Your task to perform on an android device: turn off translation in the chrome app Image 0: 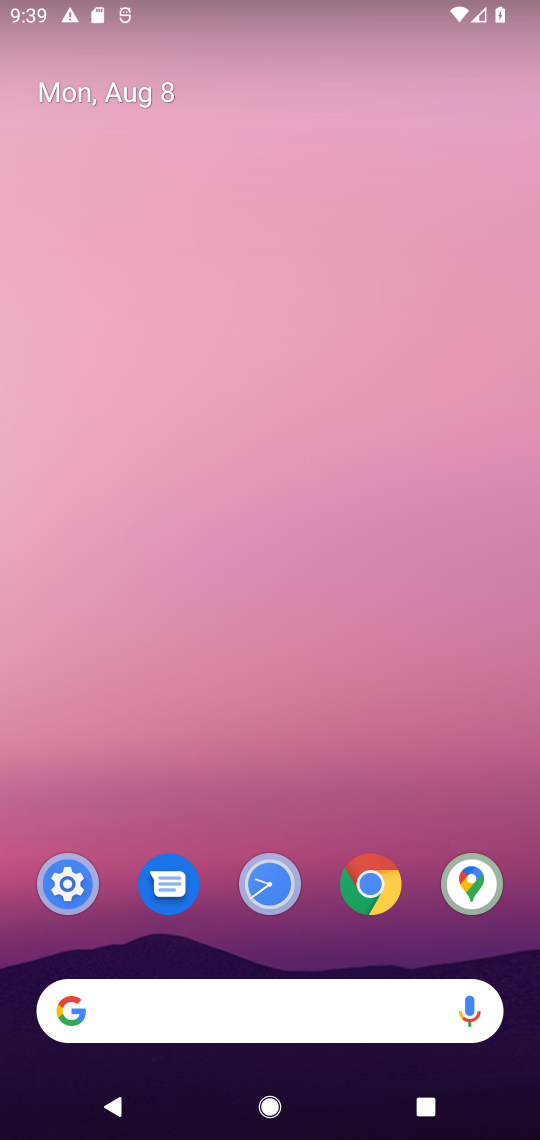
Step 0: click (370, 885)
Your task to perform on an android device: turn off translation in the chrome app Image 1: 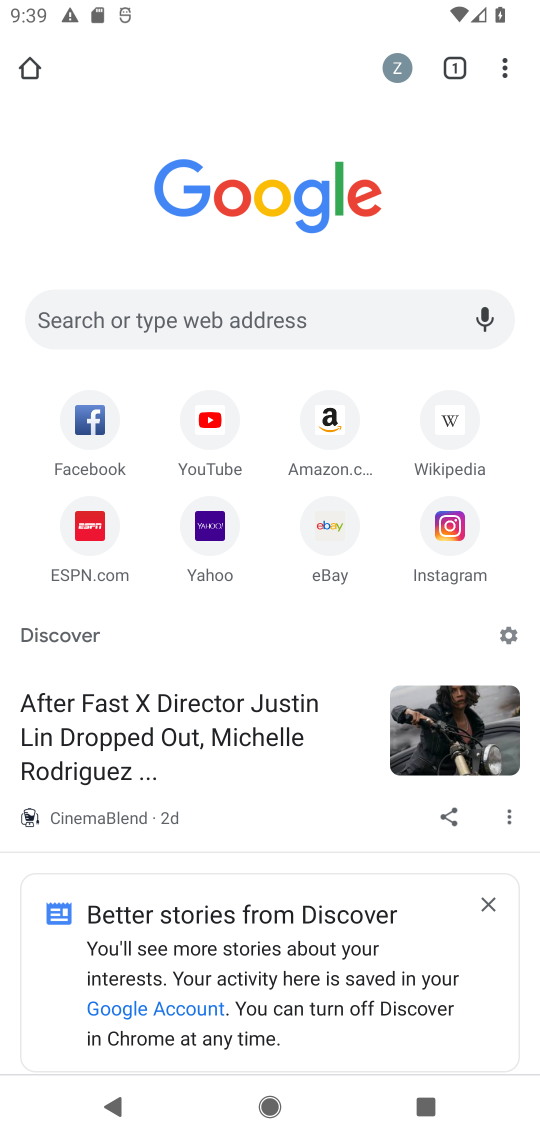
Step 1: click (503, 63)
Your task to perform on an android device: turn off translation in the chrome app Image 2: 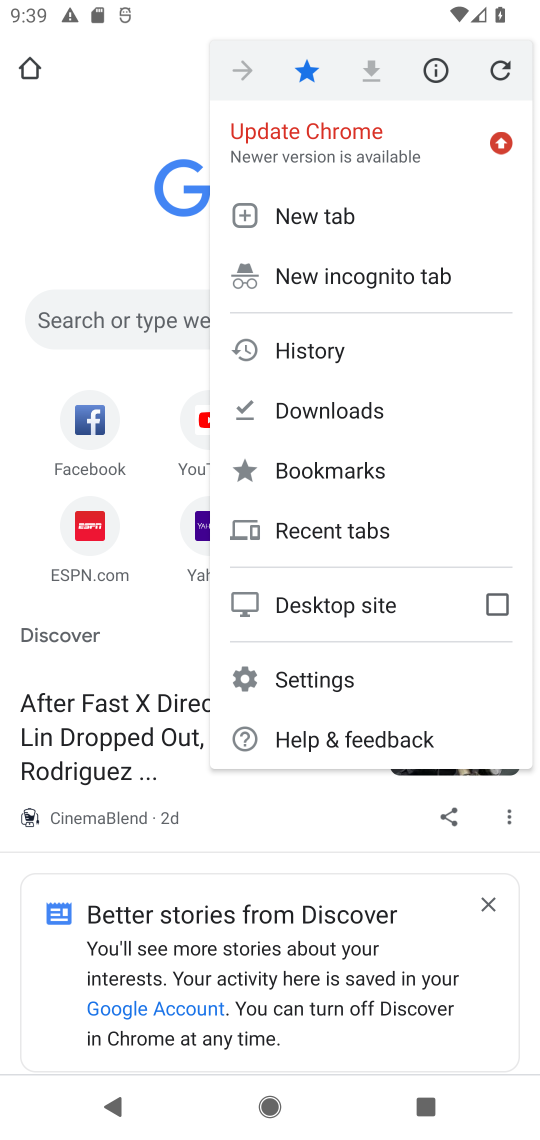
Step 2: click (310, 673)
Your task to perform on an android device: turn off translation in the chrome app Image 3: 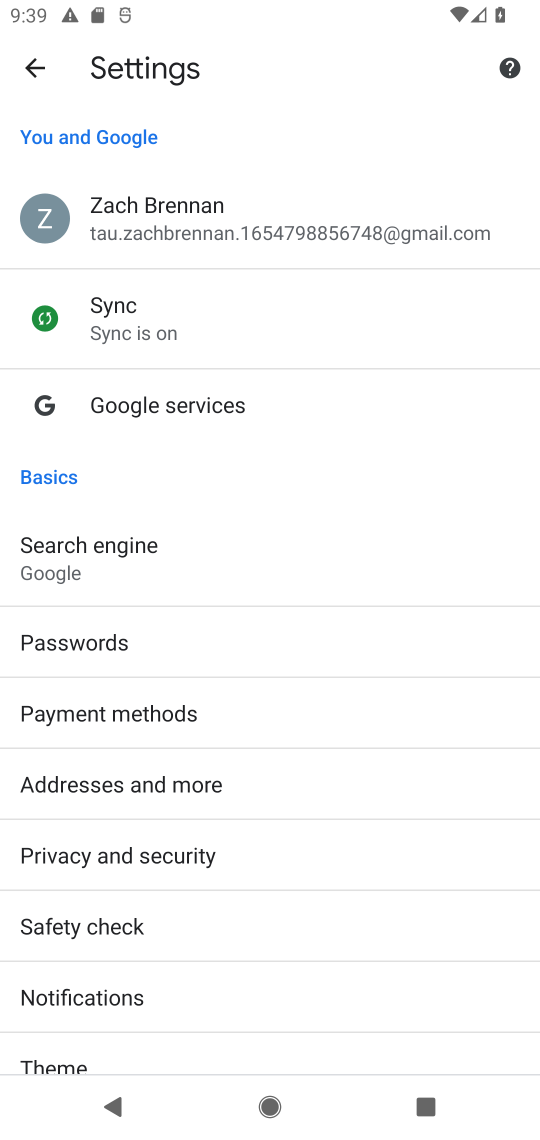
Step 3: drag from (247, 545) to (245, 454)
Your task to perform on an android device: turn off translation in the chrome app Image 4: 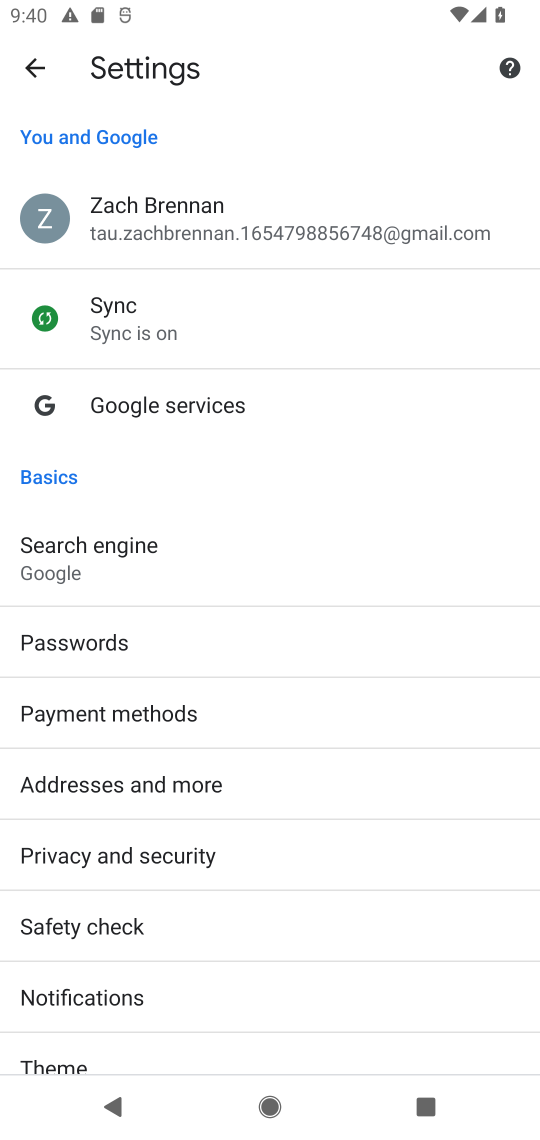
Step 4: drag from (302, 989) to (329, 384)
Your task to perform on an android device: turn off translation in the chrome app Image 5: 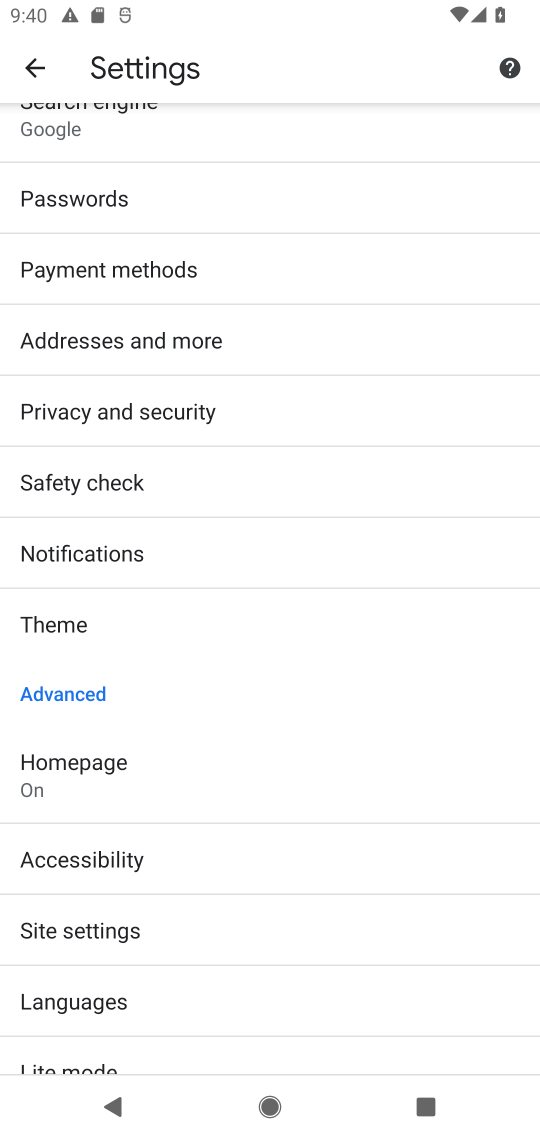
Step 5: click (102, 987)
Your task to perform on an android device: turn off translation in the chrome app Image 6: 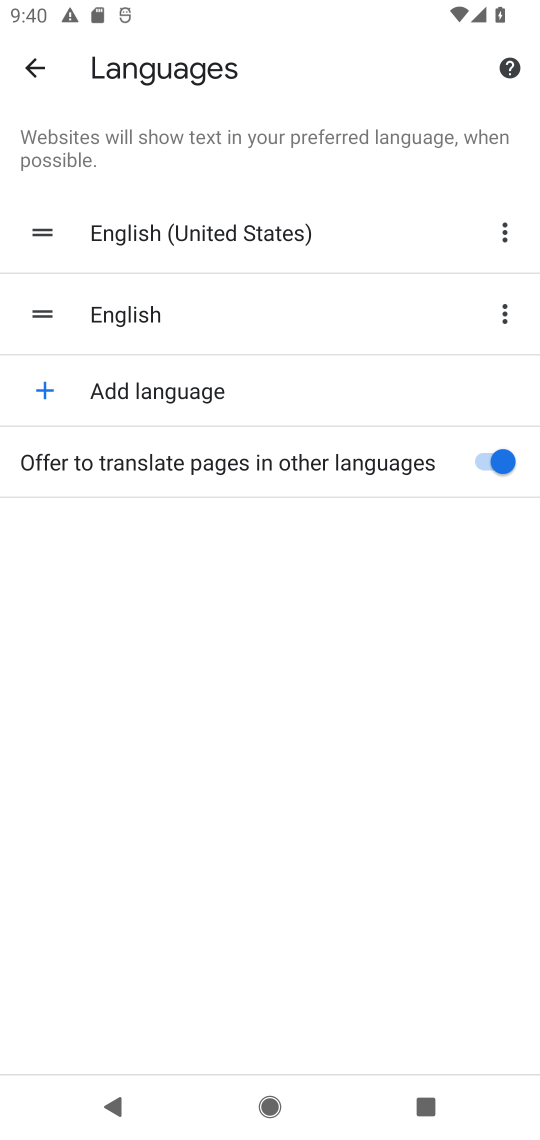
Step 6: click (503, 446)
Your task to perform on an android device: turn off translation in the chrome app Image 7: 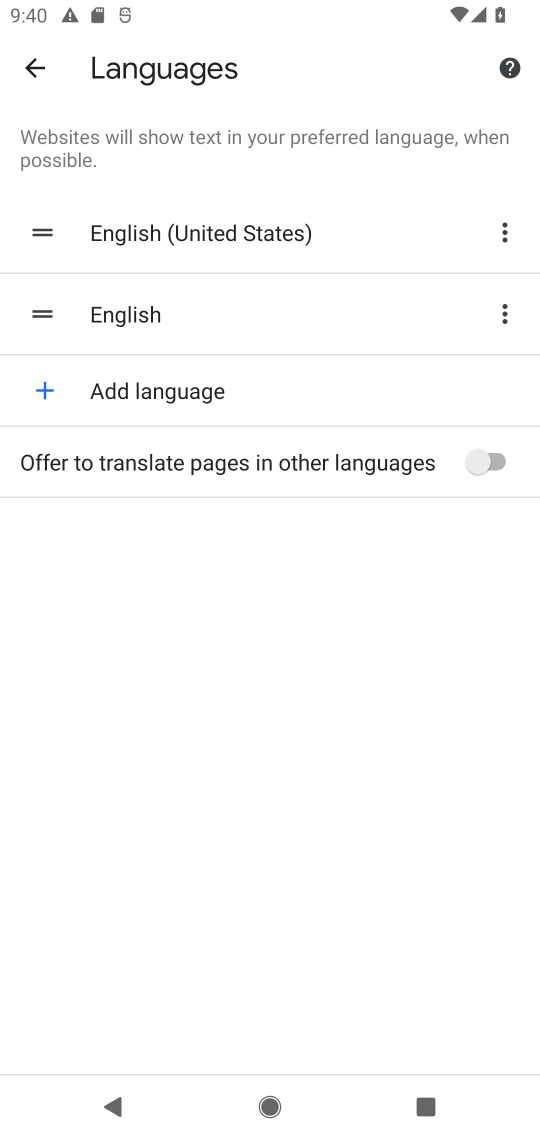
Step 7: task complete